Your task to perform on an android device: Go to Amazon Image 0: 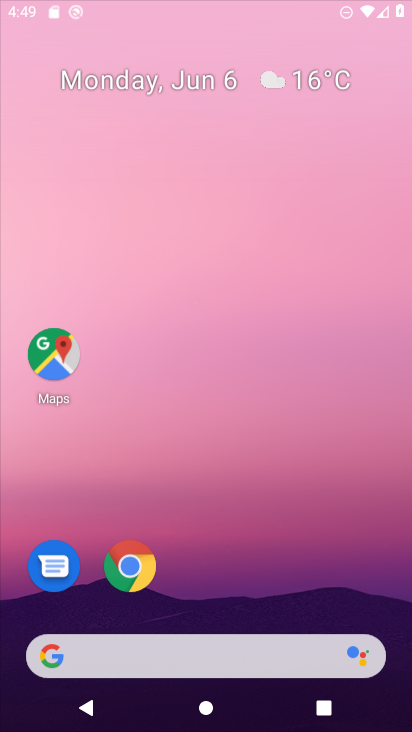
Step 0: press back button
Your task to perform on an android device: Go to Amazon Image 1: 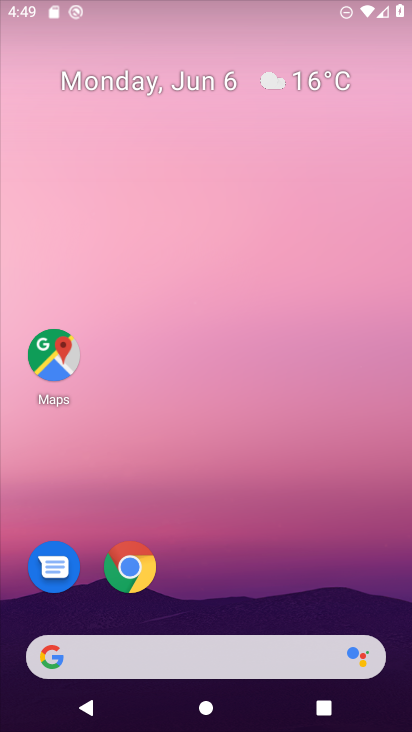
Step 1: click (169, 45)
Your task to perform on an android device: Go to Amazon Image 2: 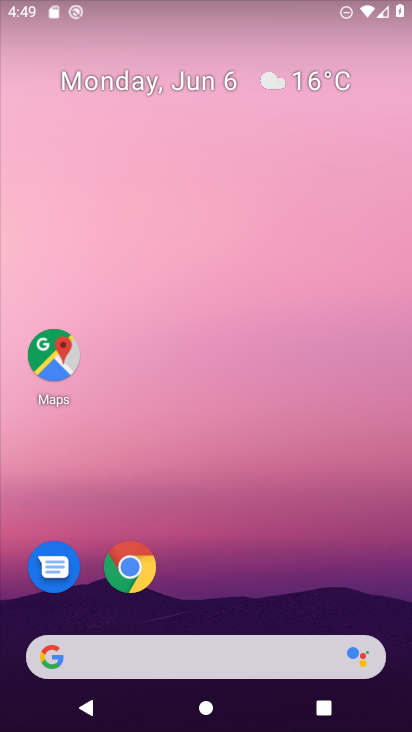
Step 2: drag from (197, 452) to (160, 128)
Your task to perform on an android device: Go to Amazon Image 3: 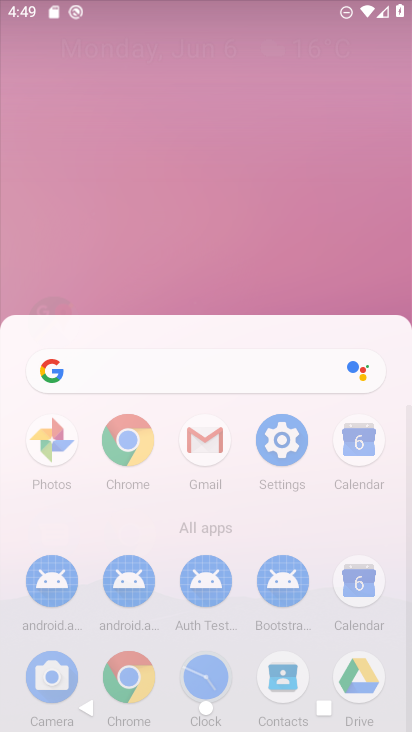
Step 3: drag from (213, 531) to (197, 20)
Your task to perform on an android device: Go to Amazon Image 4: 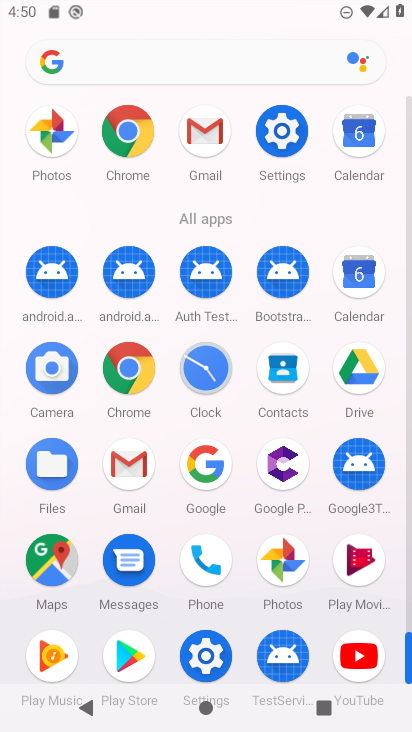
Step 4: click (112, 111)
Your task to perform on an android device: Go to Amazon Image 5: 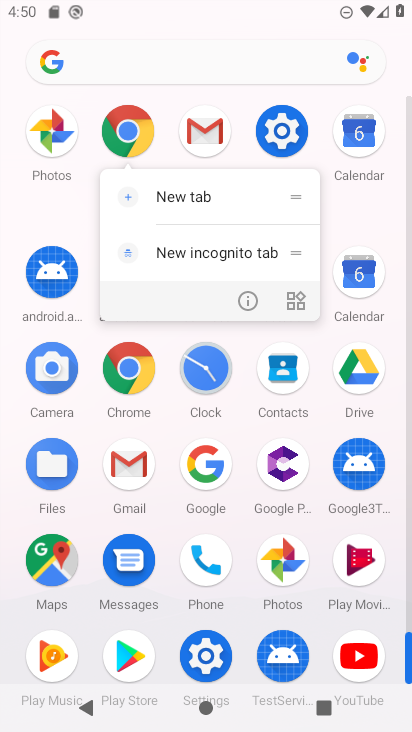
Step 5: click (134, 142)
Your task to perform on an android device: Go to Amazon Image 6: 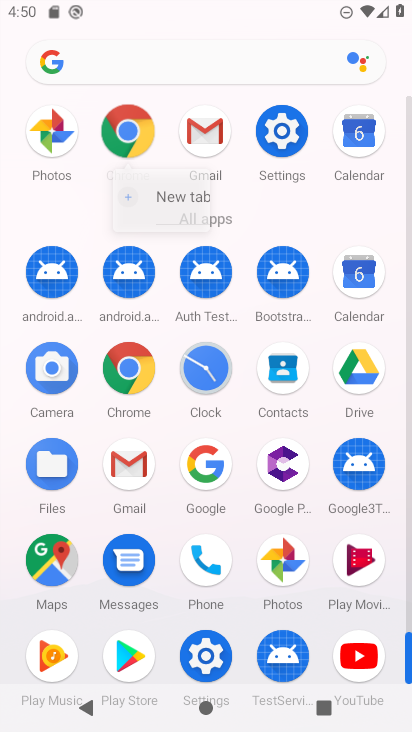
Step 6: click (134, 142)
Your task to perform on an android device: Go to Amazon Image 7: 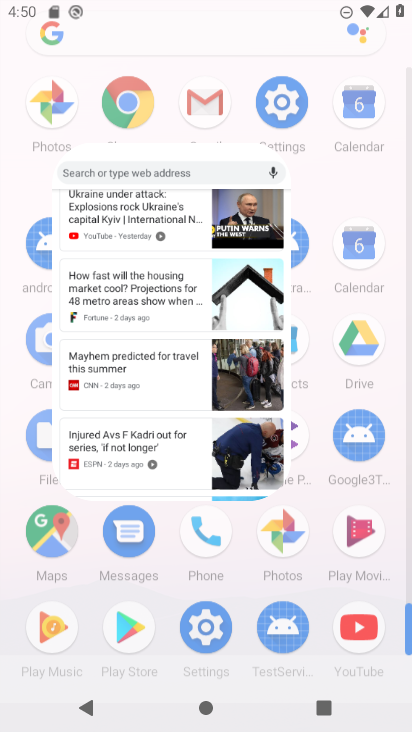
Step 7: click (133, 141)
Your task to perform on an android device: Go to Amazon Image 8: 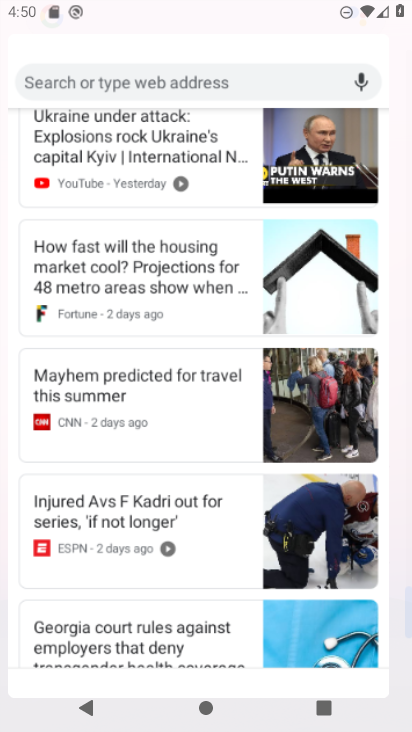
Step 8: click (133, 141)
Your task to perform on an android device: Go to Amazon Image 9: 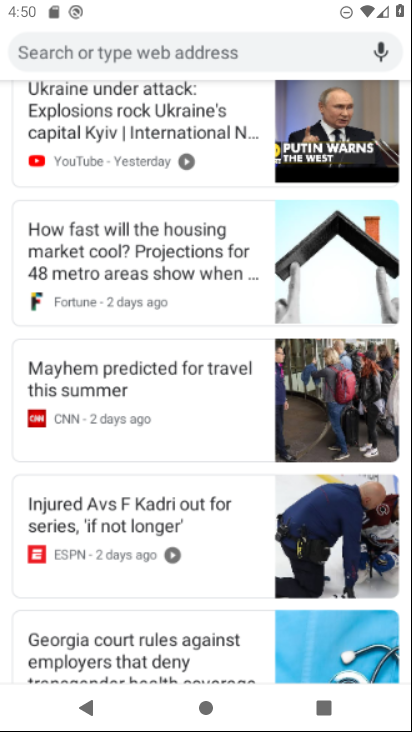
Step 9: click (132, 139)
Your task to perform on an android device: Go to Amazon Image 10: 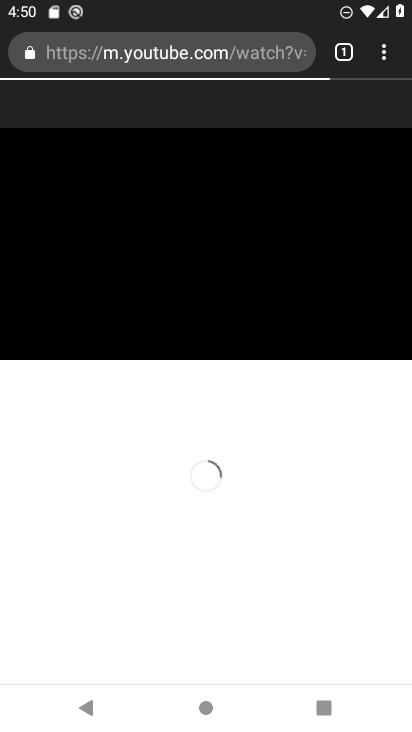
Step 10: press back button
Your task to perform on an android device: Go to Amazon Image 11: 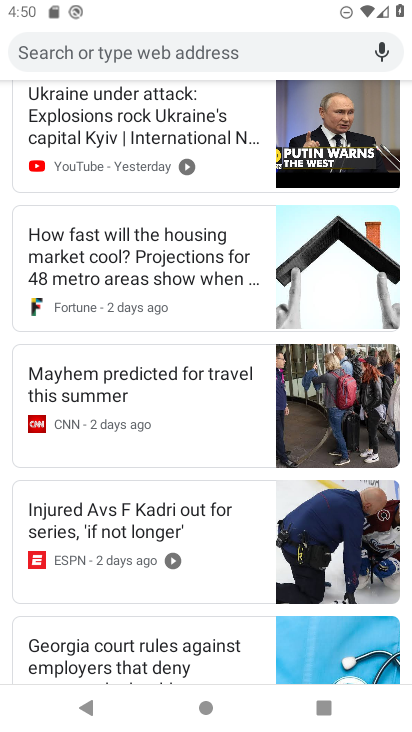
Step 11: press home button
Your task to perform on an android device: Go to Amazon Image 12: 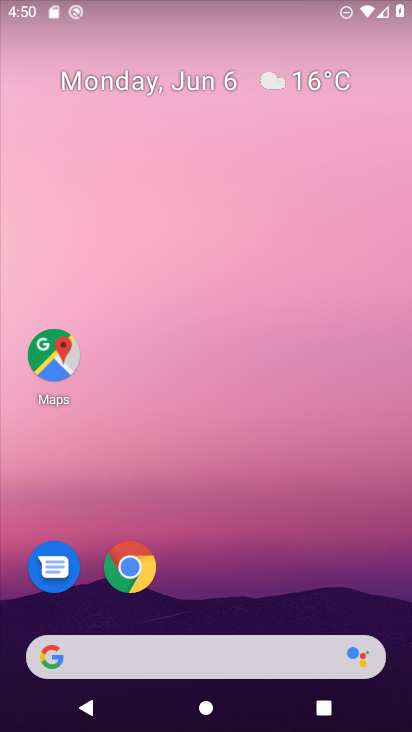
Step 12: drag from (276, 592) to (276, 246)
Your task to perform on an android device: Go to Amazon Image 13: 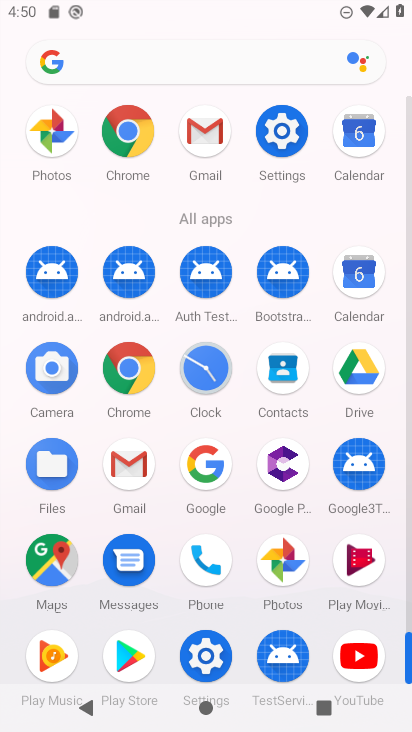
Step 13: click (123, 133)
Your task to perform on an android device: Go to Amazon Image 14: 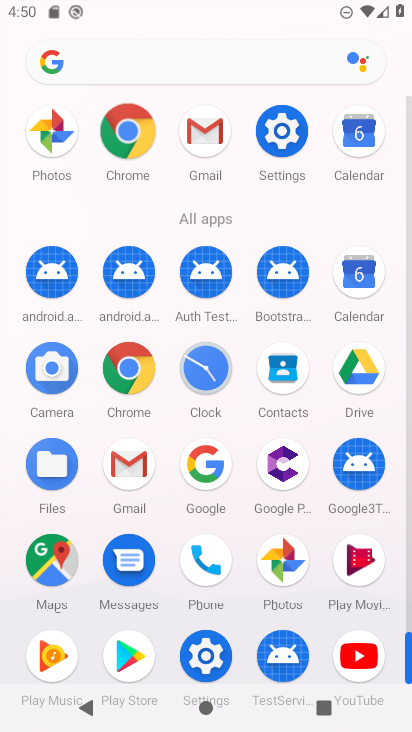
Step 14: click (123, 133)
Your task to perform on an android device: Go to Amazon Image 15: 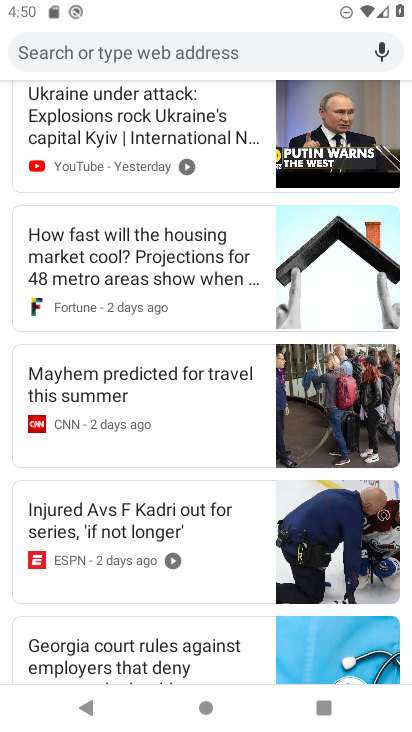
Step 15: drag from (172, 168) to (208, 497)
Your task to perform on an android device: Go to Amazon Image 16: 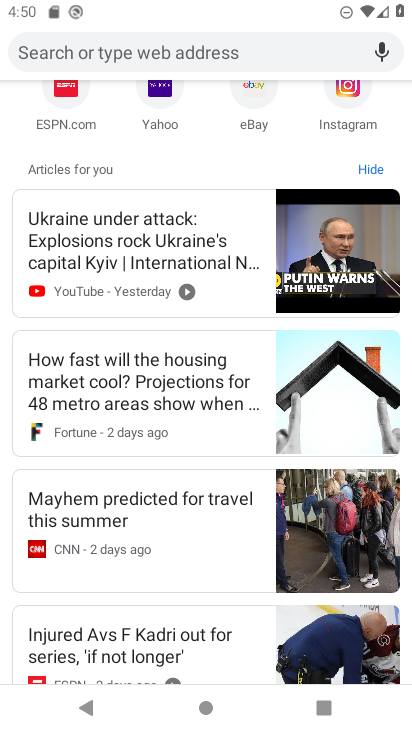
Step 16: drag from (165, 267) to (195, 427)
Your task to perform on an android device: Go to Amazon Image 17: 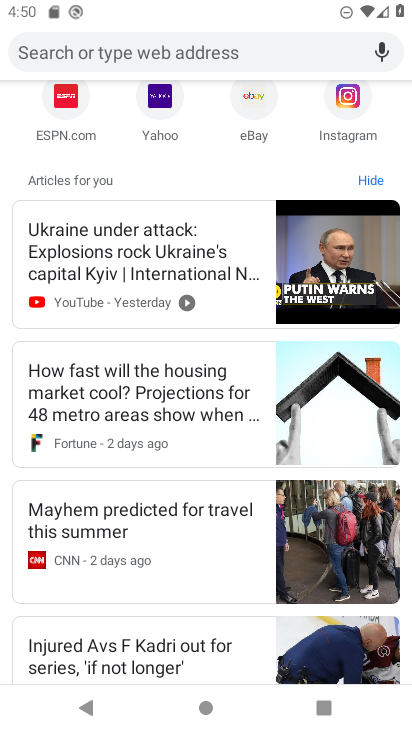
Step 17: drag from (215, 155) to (188, 581)
Your task to perform on an android device: Go to Amazon Image 18: 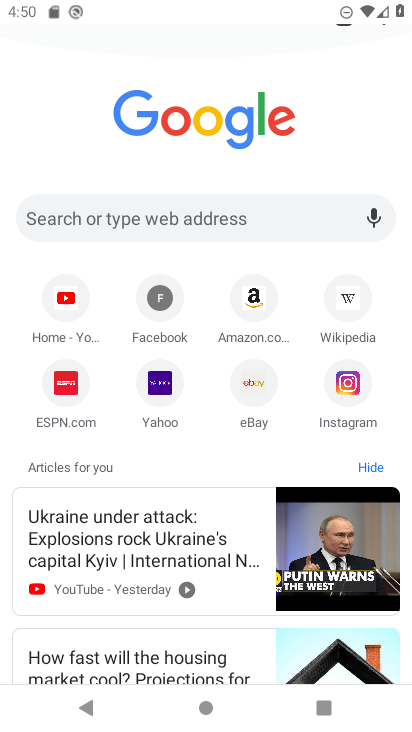
Step 18: drag from (207, 171) to (211, 627)
Your task to perform on an android device: Go to Amazon Image 19: 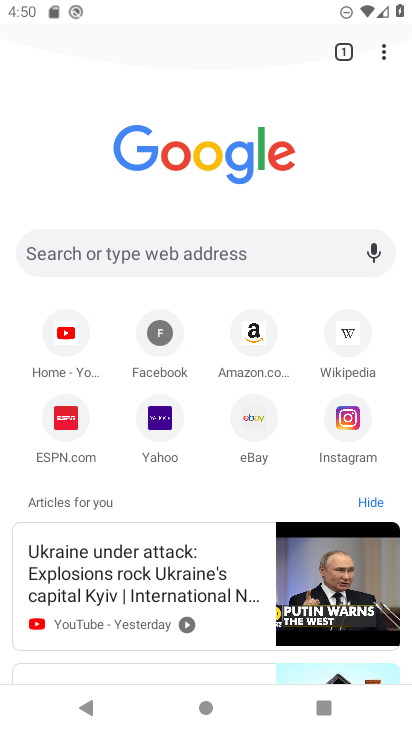
Step 19: drag from (165, 279) to (172, 692)
Your task to perform on an android device: Go to Amazon Image 20: 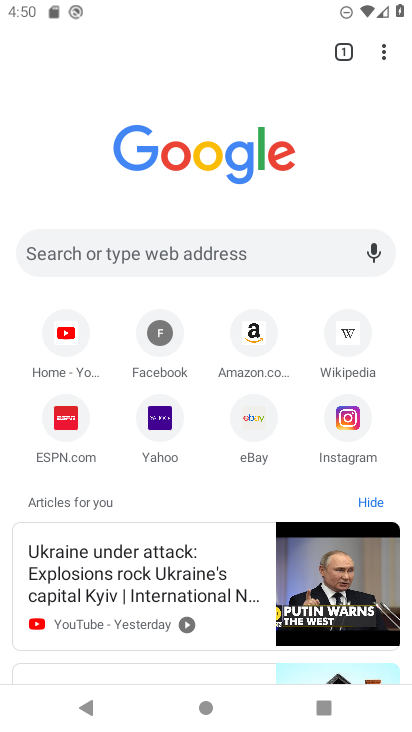
Step 20: click (254, 324)
Your task to perform on an android device: Go to Amazon Image 21: 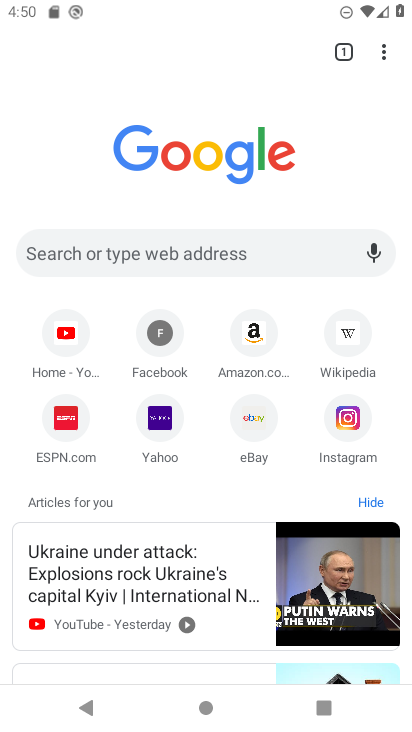
Step 21: click (254, 324)
Your task to perform on an android device: Go to Amazon Image 22: 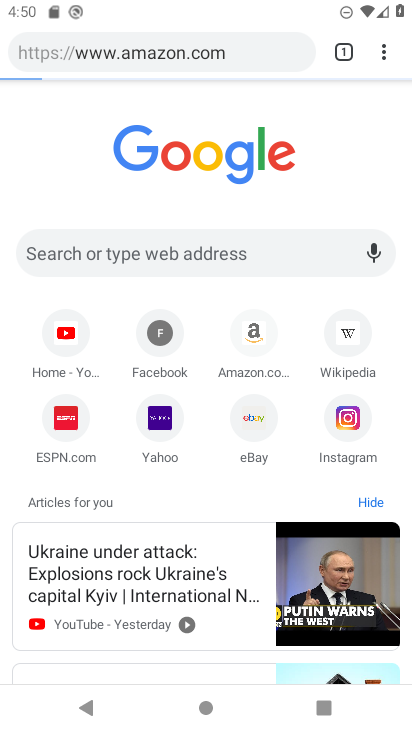
Step 22: click (249, 332)
Your task to perform on an android device: Go to Amazon Image 23: 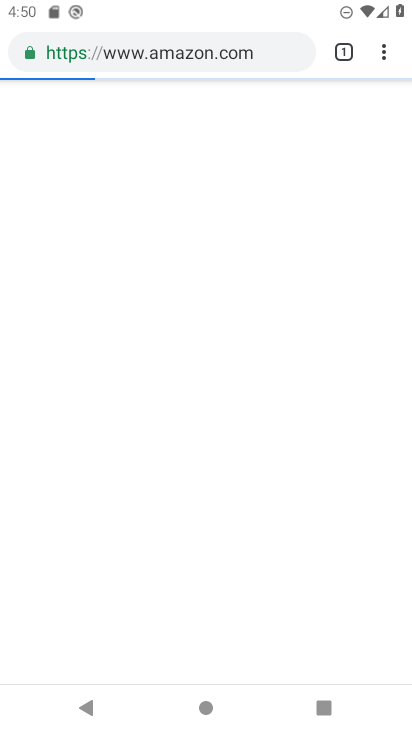
Step 23: click (249, 332)
Your task to perform on an android device: Go to Amazon Image 24: 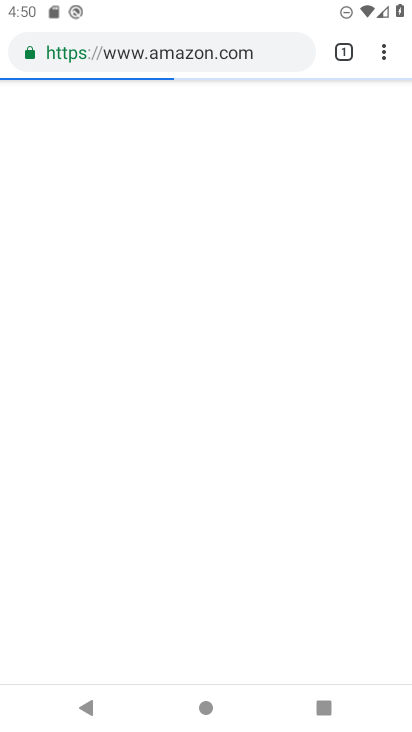
Step 24: click (249, 332)
Your task to perform on an android device: Go to Amazon Image 25: 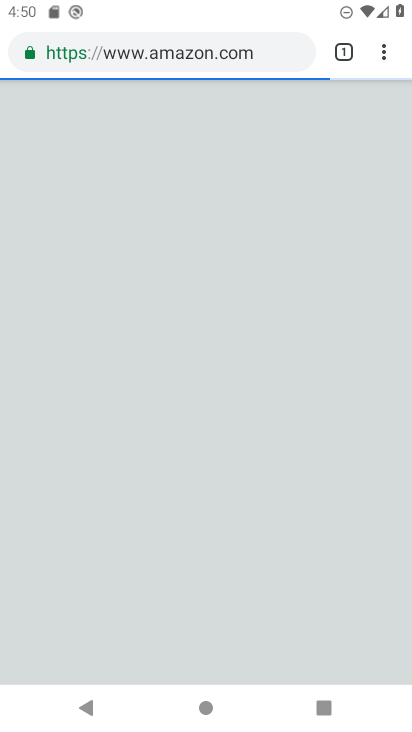
Step 25: click (249, 334)
Your task to perform on an android device: Go to Amazon Image 26: 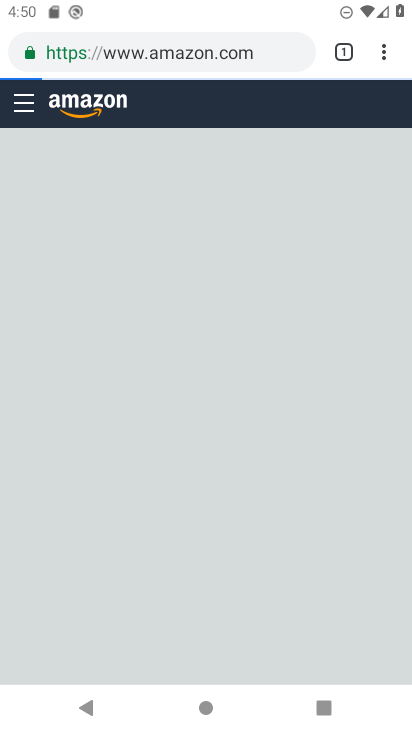
Step 26: task complete